Your task to perform on an android device: turn off data saver in the chrome app Image 0: 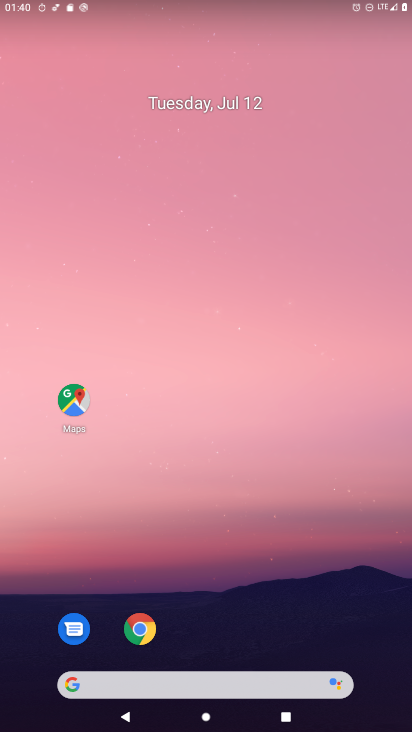
Step 0: click (138, 632)
Your task to perform on an android device: turn off data saver in the chrome app Image 1: 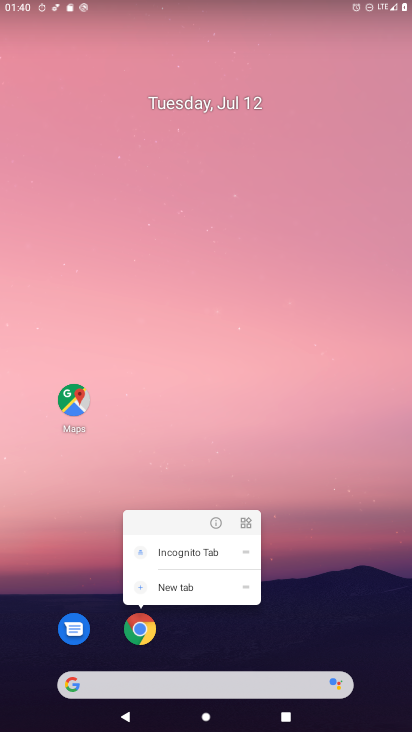
Step 1: click (139, 632)
Your task to perform on an android device: turn off data saver in the chrome app Image 2: 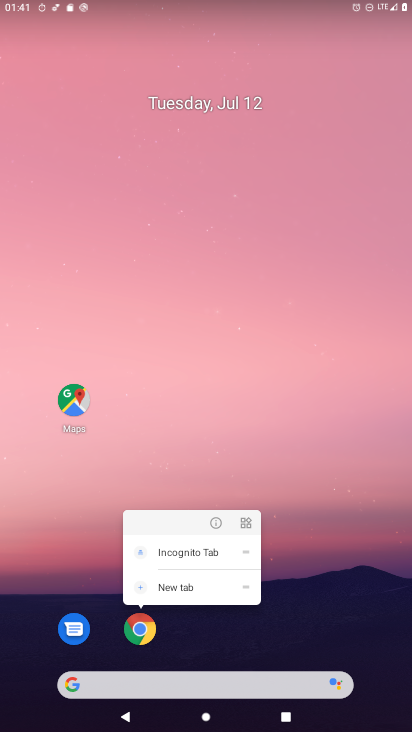
Step 2: task complete